Your task to perform on an android device: stop showing notifications on the lock screen Image 0: 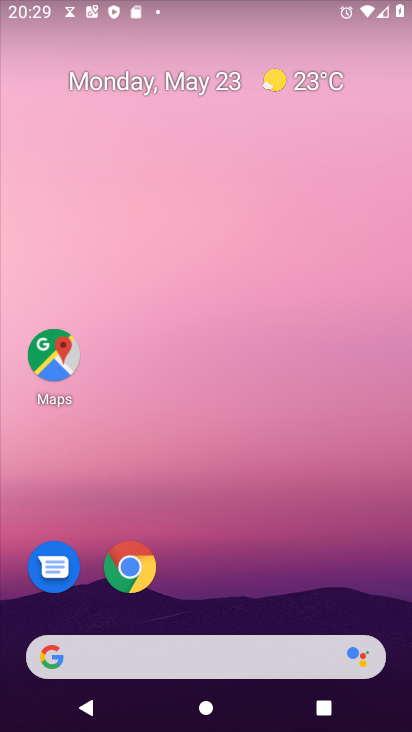
Step 0: drag from (235, 596) to (295, 194)
Your task to perform on an android device: stop showing notifications on the lock screen Image 1: 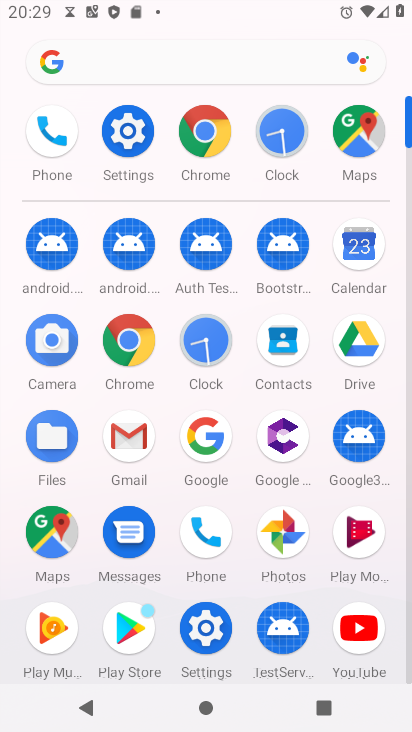
Step 1: click (127, 136)
Your task to perform on an android device: stop showing notifications on the lock screen Image 2: 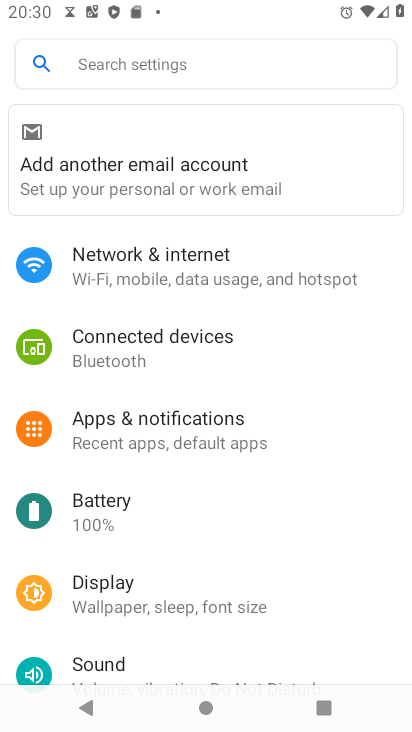
Step 2: click (198, 262)
Your task to perform on an android device: stop showing notifications on the lock screen Image 3: 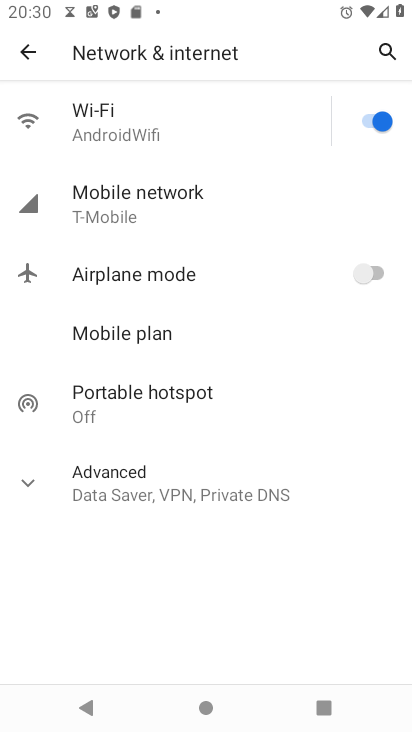
Step 3: click (22, 56)
Your task to perform on an android device: stop showing notifications on the lock screen Image 4: 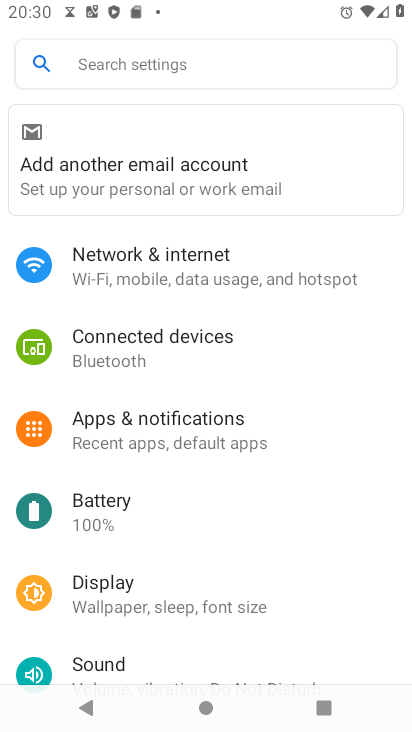
Step 4: click (229, 435)
Your task to perform on an android device: stop showing notifications on the lock screen Image 5: 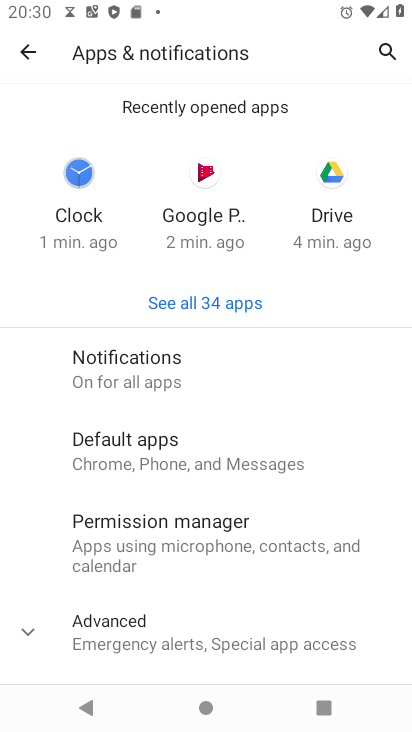
Step 5: click (137, 378)
Your task to perform on an android device: stop showing notifications on the lock screen Image 6: 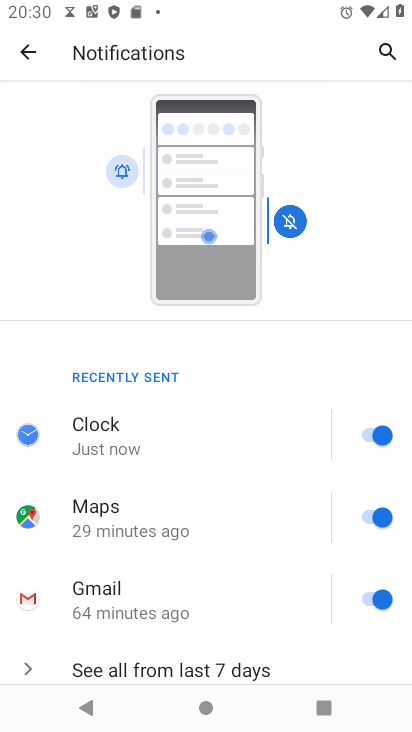
Step 6: drag from (222, 606) to (321, 234)
Your task to perform on an android device: stop showing notifications on the lock screen Image 7: 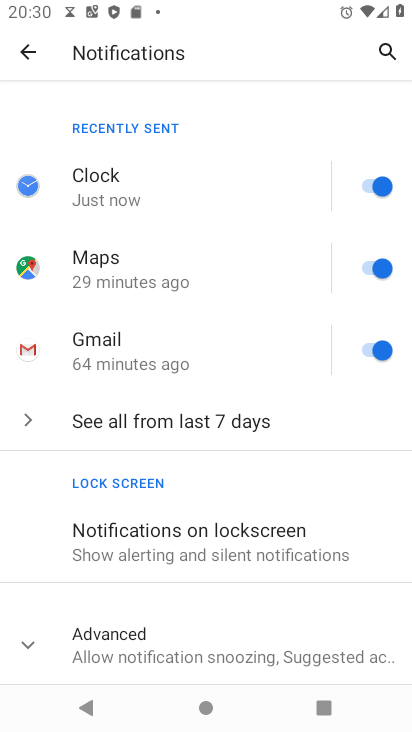
Step 7: click (140, 534)
Your task to perform on an android device: stop showing notifications on the lock screen Image 8: 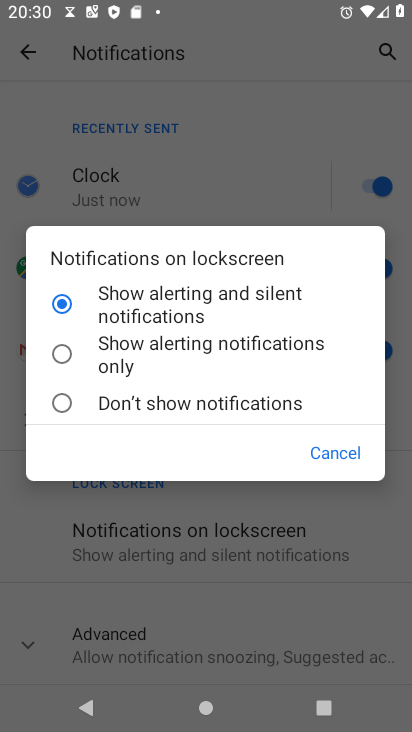
Step 8: click (108, 402)
Your task to perform on an android device: stop showing notifications on the lock screen Image 9: 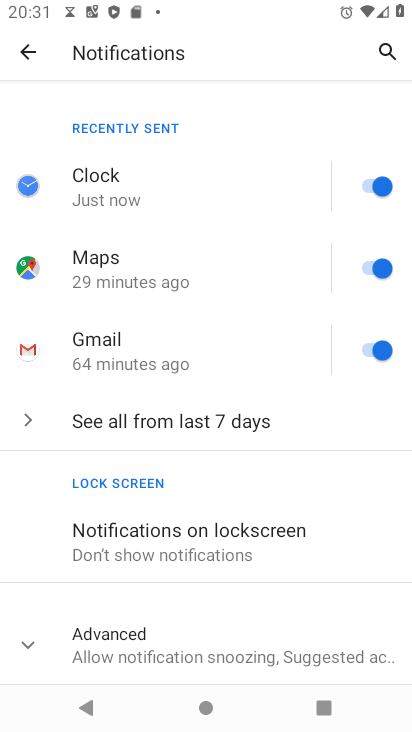
Step 9: task complete